Your task to perform on an android device: Open Google Image 0: 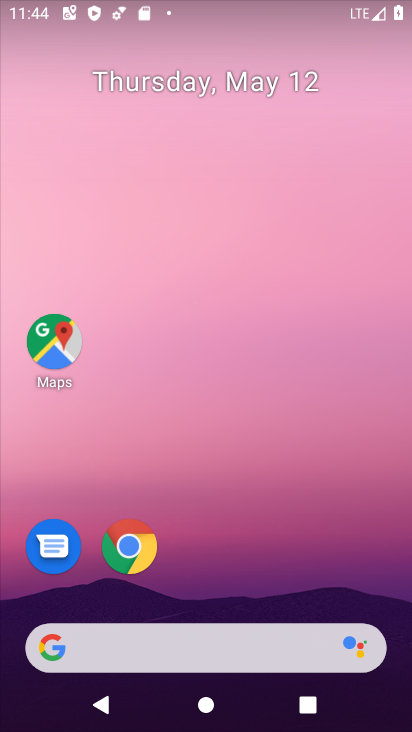
Step 0: click (49, 642)
Your task to perform on an android device: Open Google Image 1: 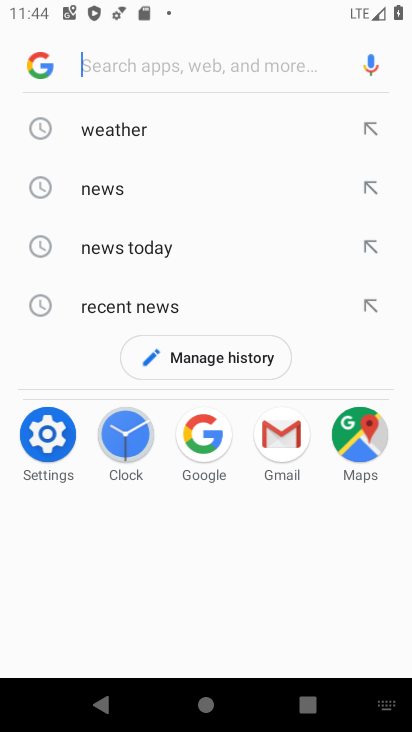
Step 1: click (195, 427)
Your task to perform on an android device: Open Google Image 2: 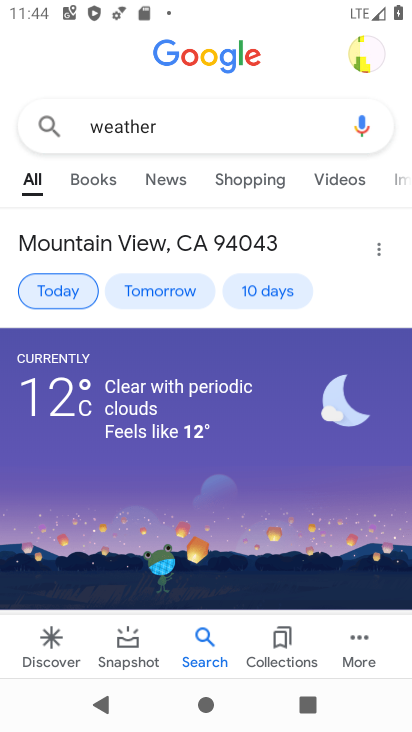
Step 2: task complete